Your task to perform on an android device: turn smart compose on in the gmail app Image 0: 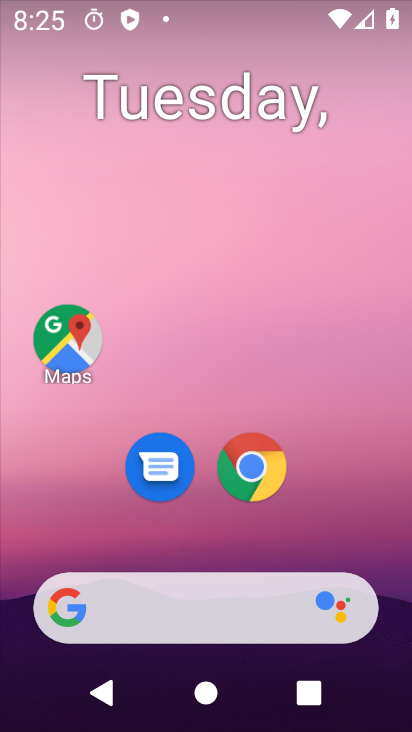
Step 0: drag from (362, 524) to (325, 184)
Your task to perform on an android device: turn smart compose on in the gmail app Image 1: 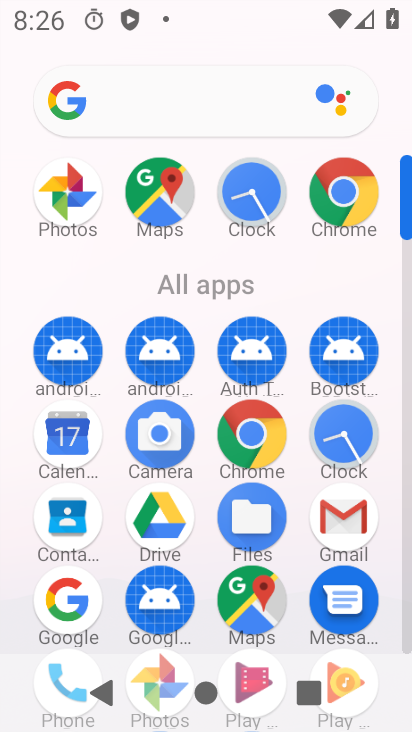
Step 1: click (349, 506)
Your task to perform on an android device: turn smart compose on in the gmail app Image 2: 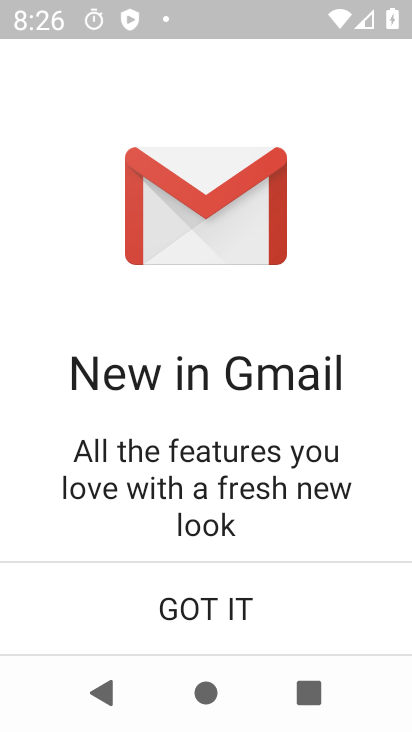
Step 2: click (253, 635)
Your task to perform on an android device: turn smart compose on in the gmail app Image 3: 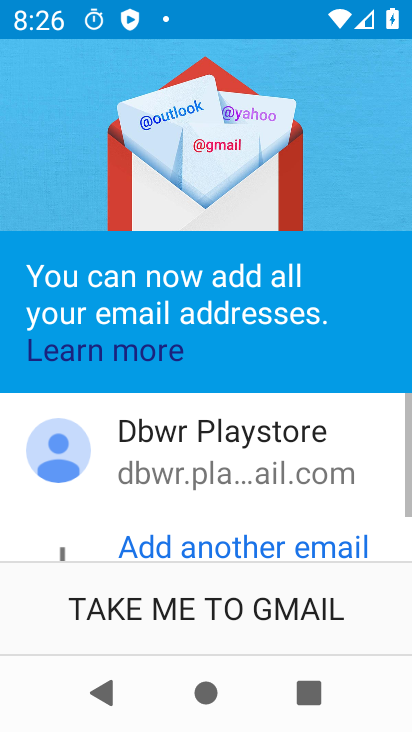
Step 3: click (253, 635)
Your task to perform on an android device: turn smart compose on in the gmail app Image 4: 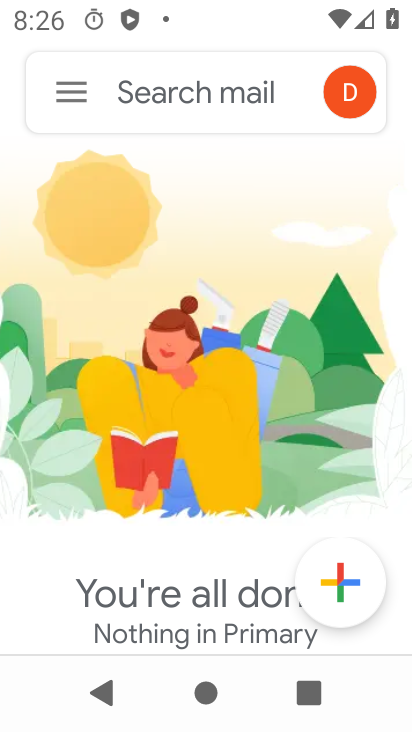
Step 4: click (79, 76)
Your task to perform on an android device: turn smart compose on in the gmail app Image 5: 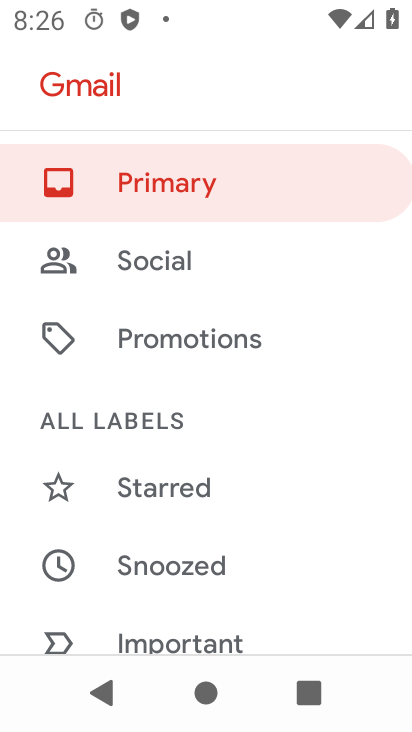
Step 5: drag from (258, 636) to (256, 181)
Your task to perform on an android device: turn smart compose on in the gmail app Image 6: 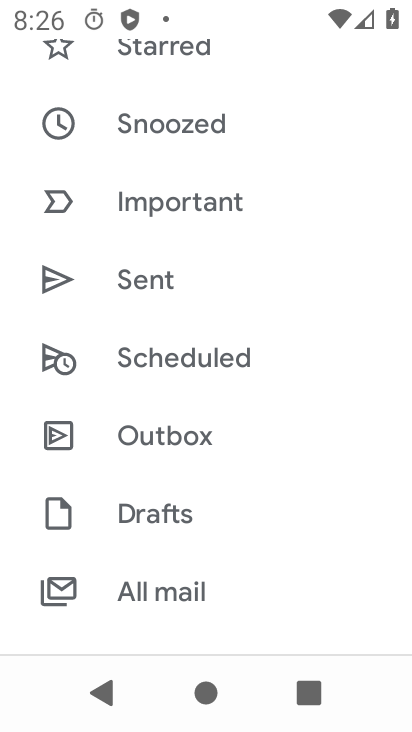
Step 6: drag from (237, 626) to (224, 180)
Your task to perform on an android device: turn smart compose on in the gmail app Image 7: 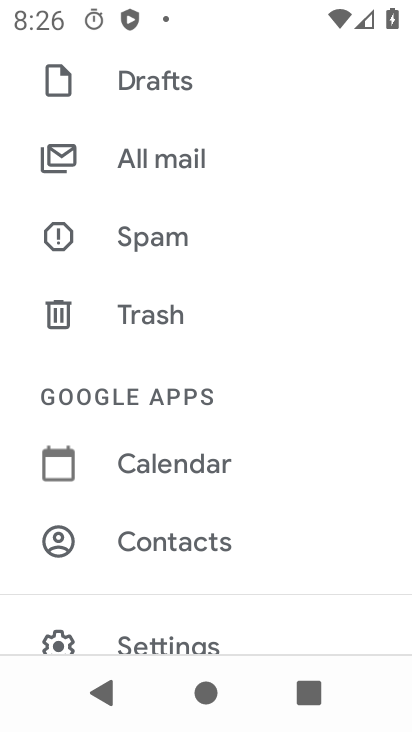
Step 7: drag from (290, 621) to (254, 203)
Your task to perform on an android device: turn smart compose on in the gmail app Image 8: 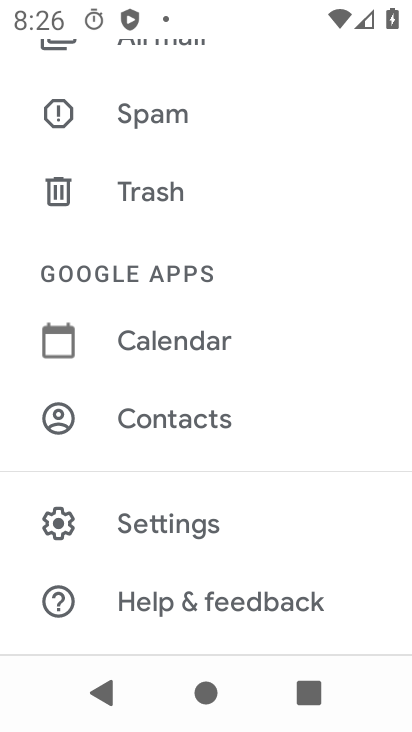
Step 8: click (278, 524)
Your task to perform on an android device: turn smart compose on in the gmail app Image 9: 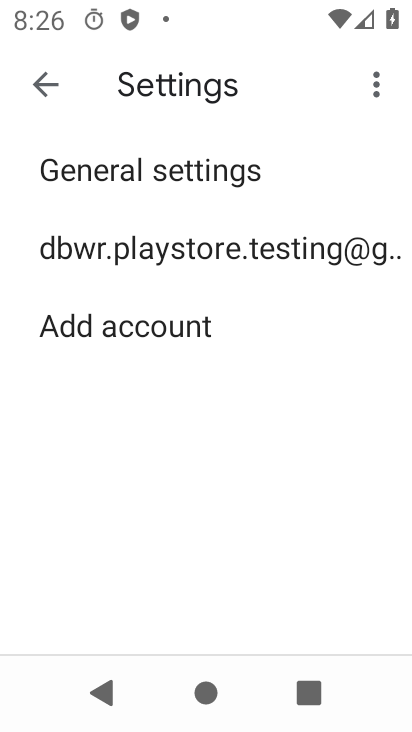
Step 9: click (251, 249)
Your task to perform on an android device: turn smart compose on in the gmail app Image 10: 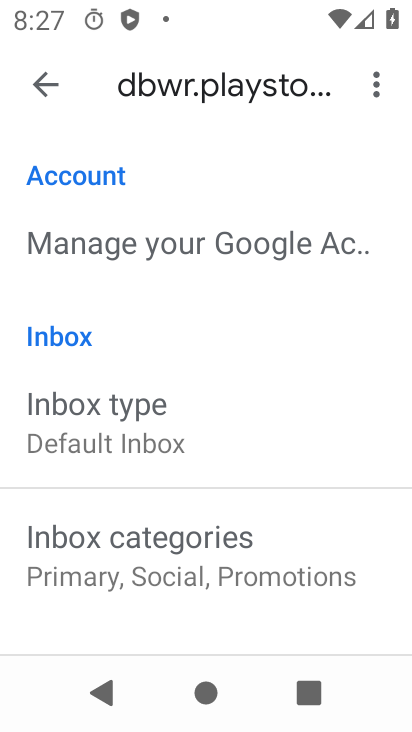
Step 10: task complete